Your task to perform on an android device: turn smart compose on in the gmail app Image 0: 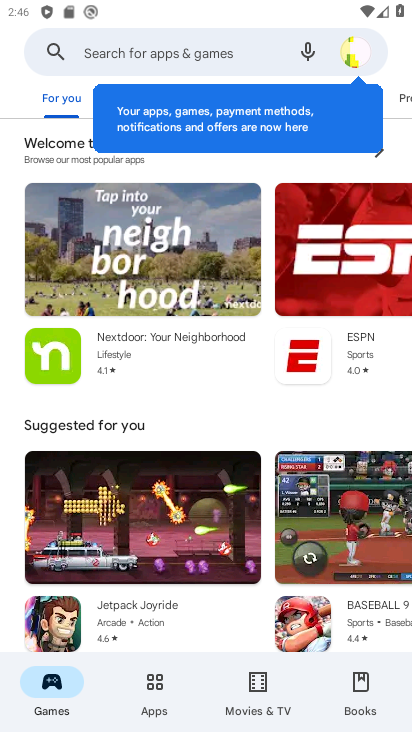
Step 0: press home button
Your task to perform on an android device: turn smart compose on in the gmail app Image 1: 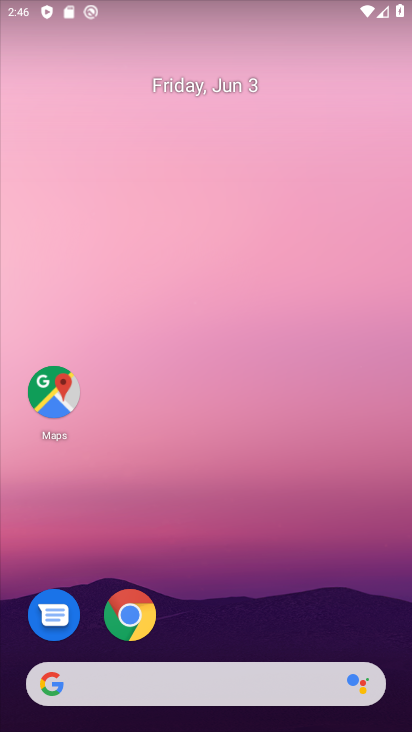
Step 1: drag from (180, 604) to (298, 58)
Your task to perform on an android device: turn smart compose on in the gmail app Image 2: 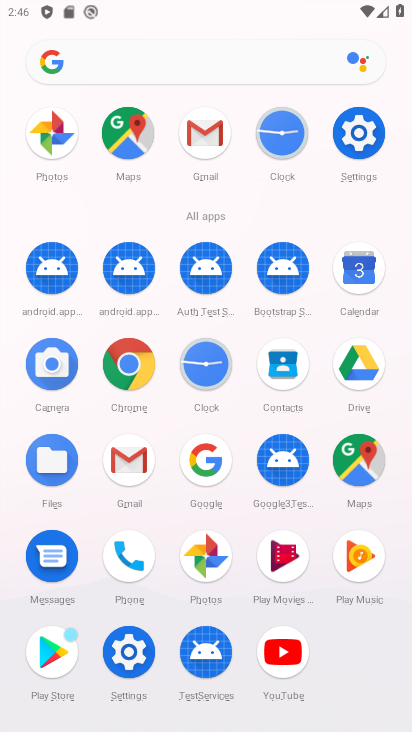
Step 2: click (127, 450)
Your task to perform on an android device: turn smart compose on in the gmail app Image 3: 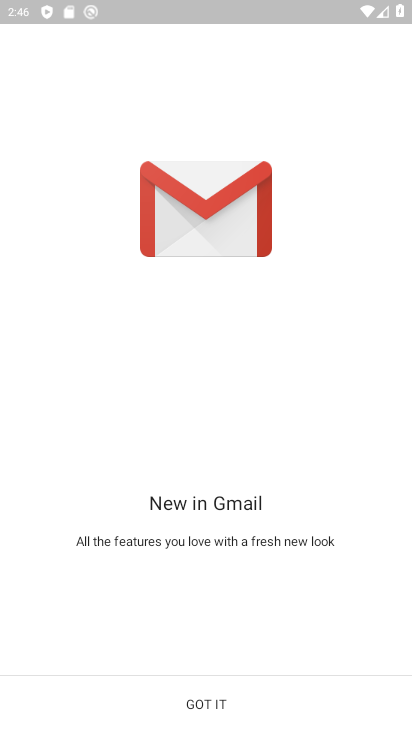
Step 3: click (213, 694)
Your task to perform on an android device: turn smart compose on in the gmail app Image 4: 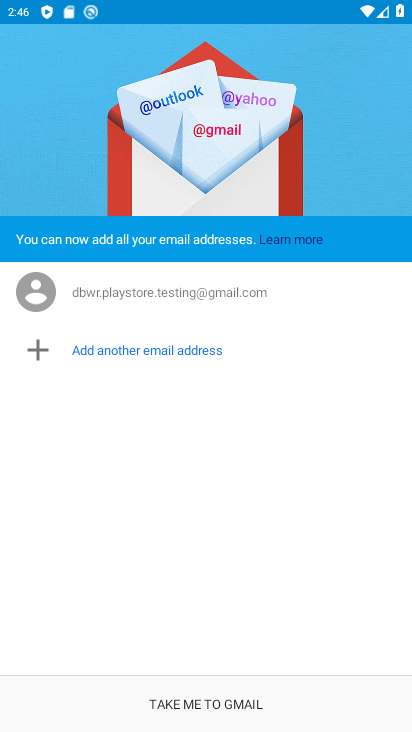
Step 4: click (176, 692)
Your task to perform on an android device: turn smart compose on in the gmail app Image 5: 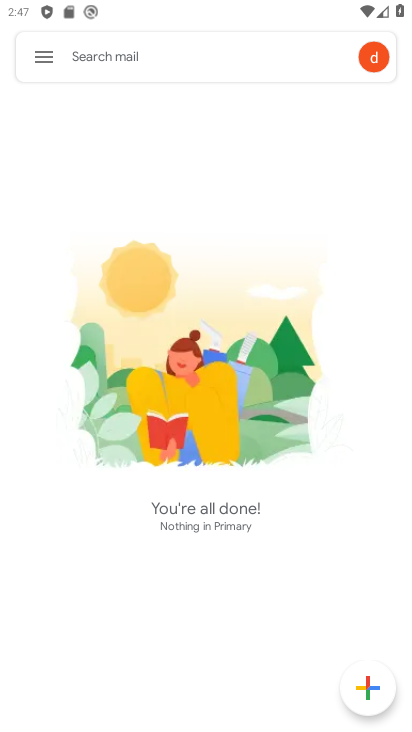
Step 5: click (43, 51)
Your task to perform on an android device: turn smart compose on in the gmail app Image 6: 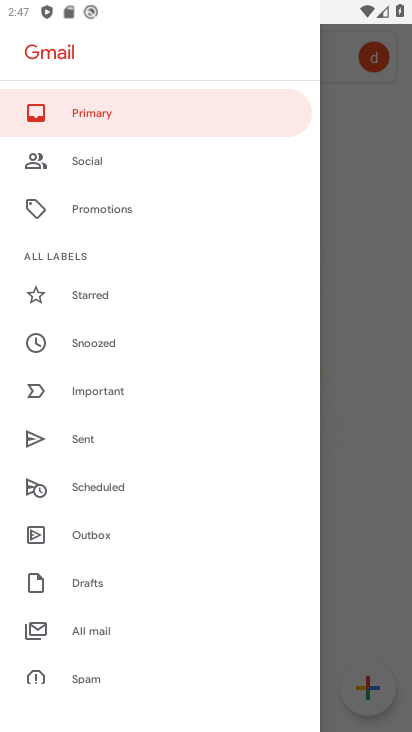
Step 6: drag from (211, 658) to (297, 252)
Your task to perform on an android device: turn smart compose on in the gmail app Image 7: 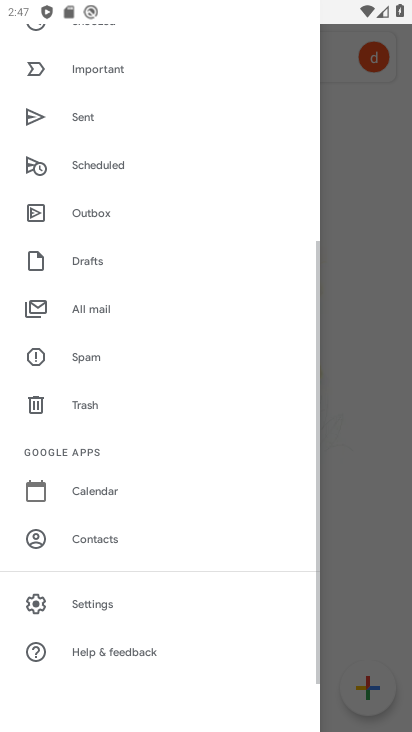
Step 7: click (104, 611)
Your task to perform on an android device: turn smart compose on in the gmail app Image 8: 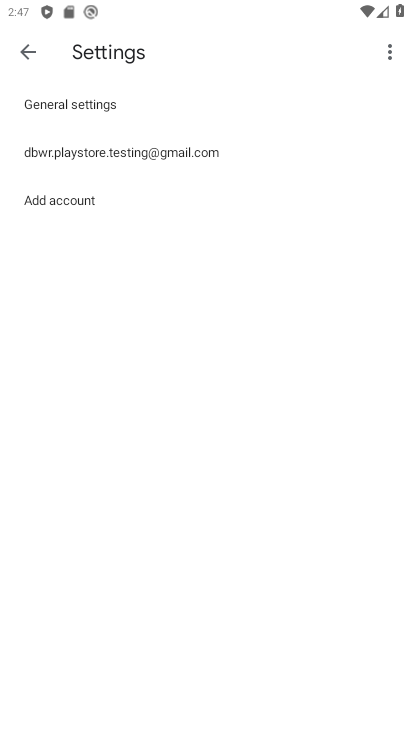
Step 8: click (146, 154)
Your task to perform on an android device: turn smart compose on in the gmail app Image 9: 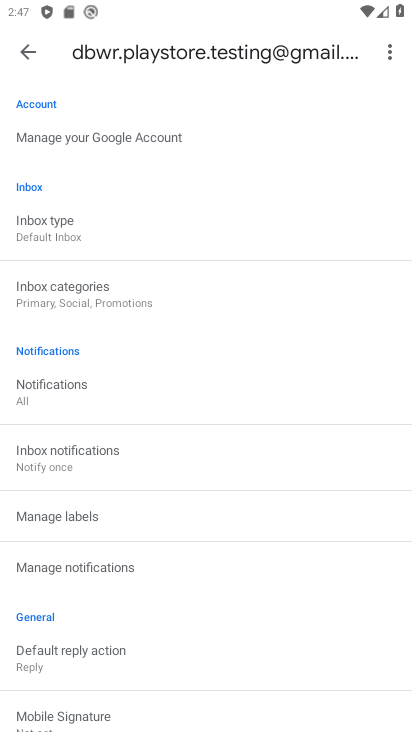
Step 9: task complete